Your task to perform on an android device: Open sound settings Image 0: 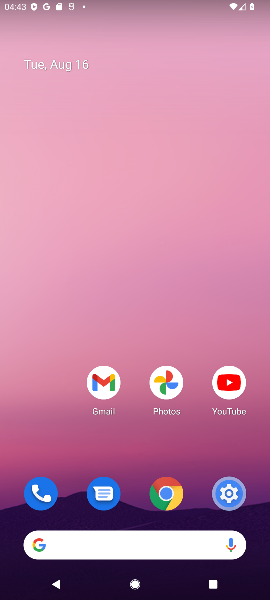
Step 0: press home button
Your task to perform on an android device: Open sound settings Image 1: 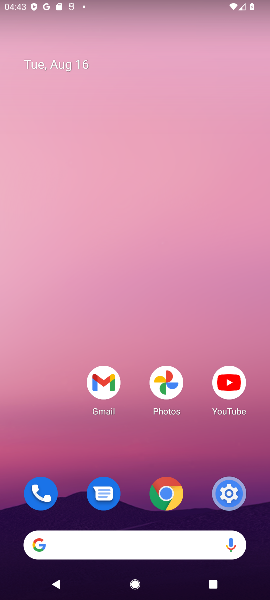
Step 1: drag from (67, 462) to (79, 96)
Your task to perform on an android device: Open sound settings Image 2: 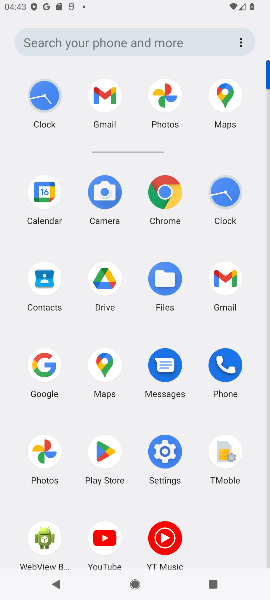
Step 2: click (163, 454)
Your task to perform on an android device: Open sound settings Image 3: 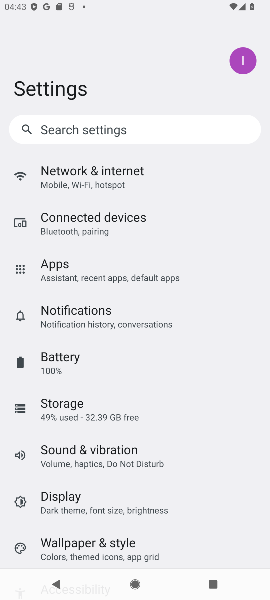
Step 3: drag from (206, 467) to (219, 373)
Your task to perform on an android device: Open sound settings Image 4: 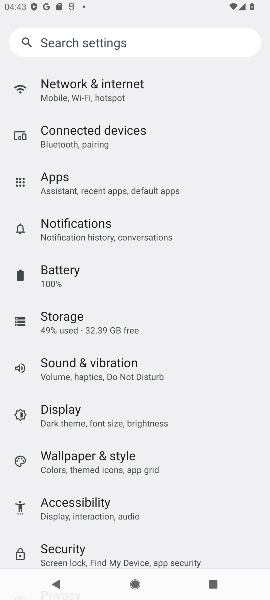
Step 4: drag from (203, 494) to (226, 360)
Your task to perform on an android device: Open sound settings Image 5: 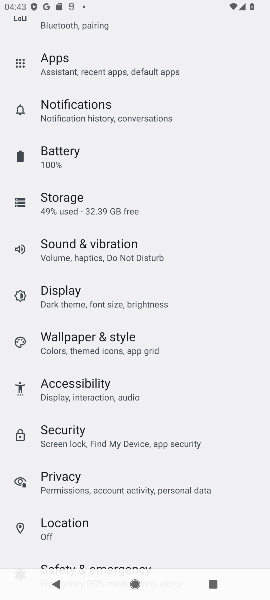
Step 5: drag from (222, 476) to (230, 305)
Your task to perform on an android device: Open sound settings Image 6: 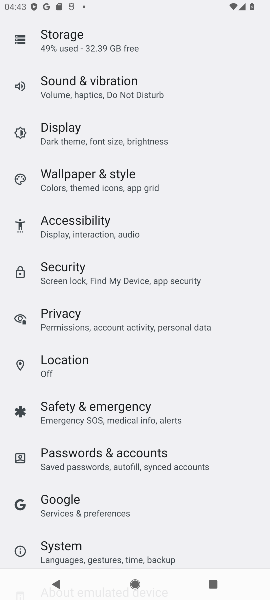
Step 6: drag from (231, 454) to (246, 324)
Your task to perform on an android device: Open sound settings Image 7: 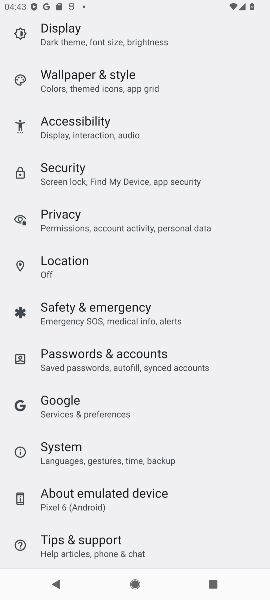
Step 7: drag from (231, 493) to (235, 337)
Your task to perform on an android device: Open sound settings Image 8: 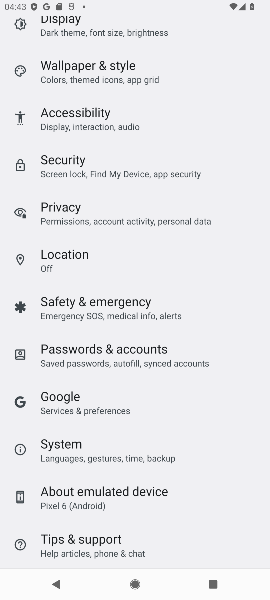
Step 8: drag from (241, 227) to (255, 373)
Your task to perform on an android device: Open sound settings Image 9: 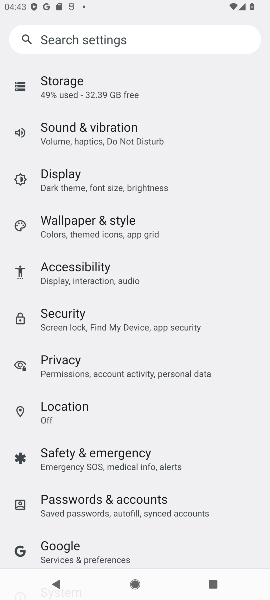
Step 9: drag from (233, 179) to (246, 332)
Your task to perform on an android device: Open sound settings Image 10: 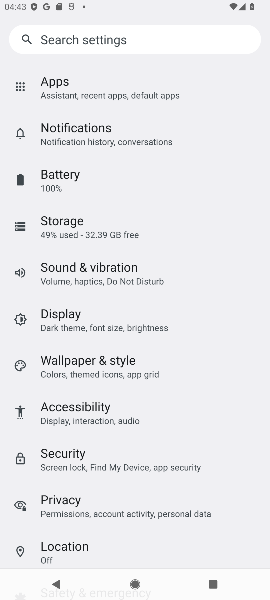
Step 10: drag from (231, 180) to (236, 334)
Your task to perform on an android device: Open sound settings Image 11: 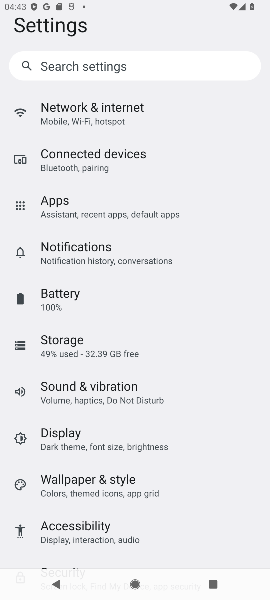
Step 11: drag from (222, 149) to (239, 342)
Your task to perform on an android device: Open sound settings Image 12: 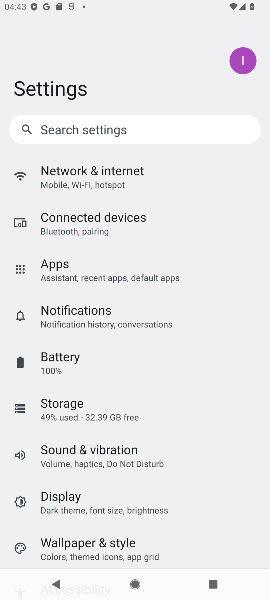
Step 12: click (177, 455)
Your task to perform on an android device: Open sound settings Image 13: 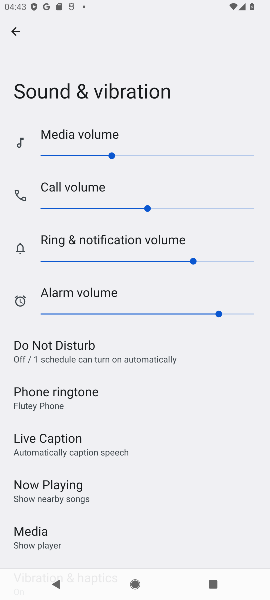
Step 13: task complete